Your task to perform on an android device: move a message to another label in the gmail app Image 0: 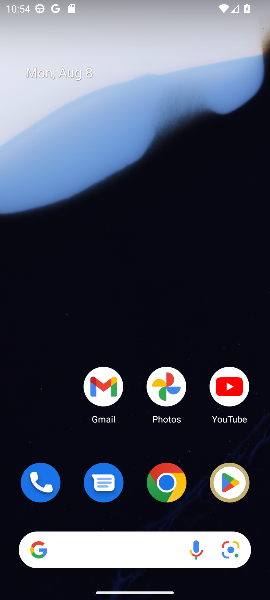
Step 0: press home button
Your task to perform on an android device: move a message to another label in the gmail app Image 1: 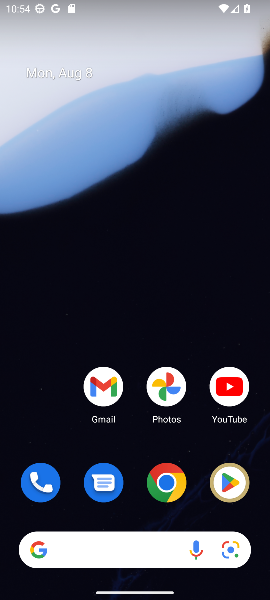
Step 1: drag from (184, 440) to (196, 86)
Your task to perform on an android device: move a message to another label in the gmail app Image 2: 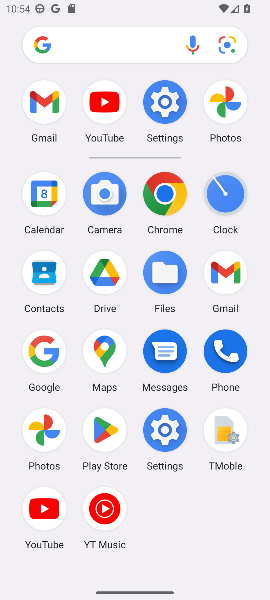
Step 2: click (227, 275)
Your task to perform on an android device: move a message to another label in the gmail app Image 3: 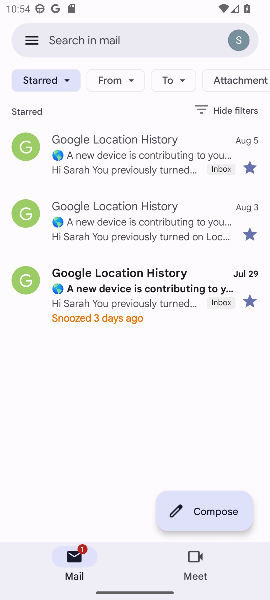
Step 3: click (143, 170)
Your task to perform on an android device: move a message to another label in the gmail app Image 4: 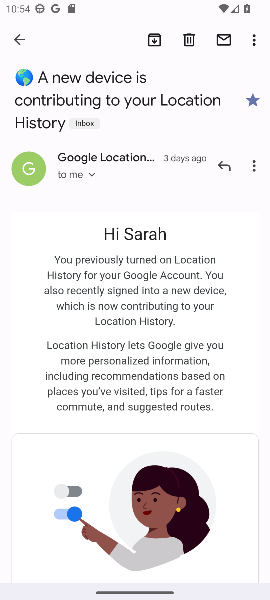
Step 4: click (84, 128)
Your task to perform on an android device: move a message to another label in the gmail app Image 5: 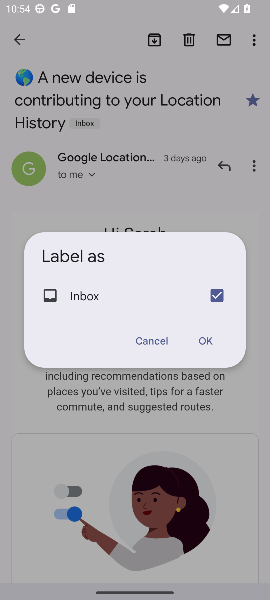
Step 5: click (210, 290)
Your task to perform on an android device: move a message to another label in the gmail app Image 6: 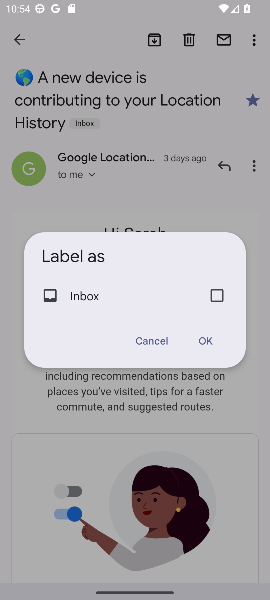
Step 6: click (204, 337)
Your task to perform on an android device: move a message to another label in the gmail app Image 7: 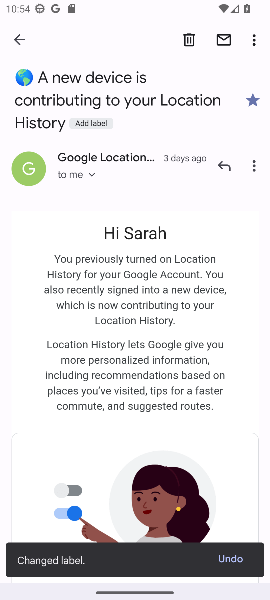
Step 7: task complete